Your task to perform on an android device: Open Google Maps Image 0: 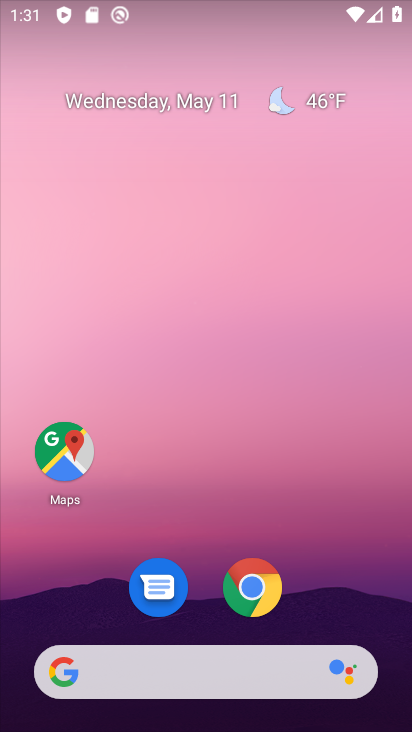
Step 0: click (69, 463)
Your task to perform on an android device: Open Google Maps Image 1: 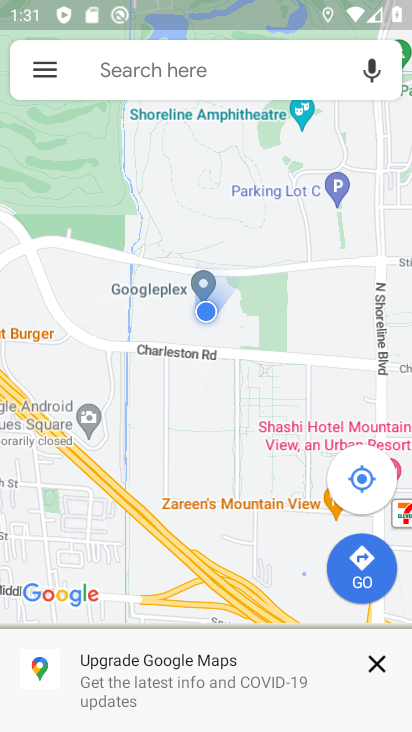
Step 1: task complete